Your task to perform on an android device: turn off data saver in the chrome app Image 0: 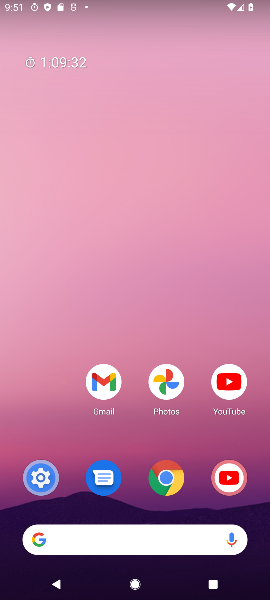
Step 0: press home button
Your task to perform on an android device: turn off data saver in the chrome app Image 1: 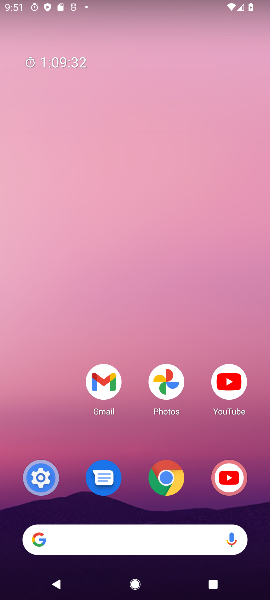
Step 1: press home button
Your task to perform on an android device: turn off data saver in the chrome app Image 2: 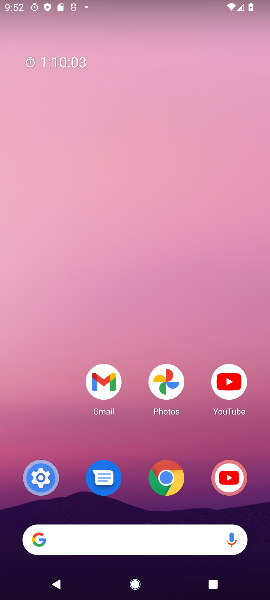
Step 2: drag from (68, 446) to (92, 73)
Your task to perform on an android device: turn off data saver in the chrome app Image 3: 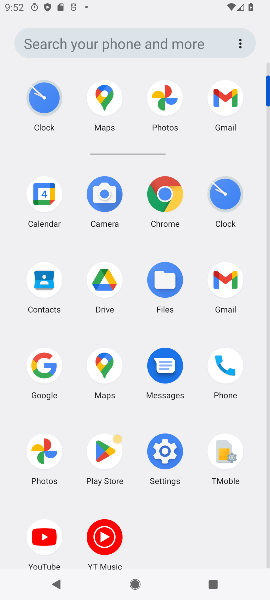
Step 3: click (160, 207)
Your task to perform on an android device: turn off data saver in the chrome app Image 4: 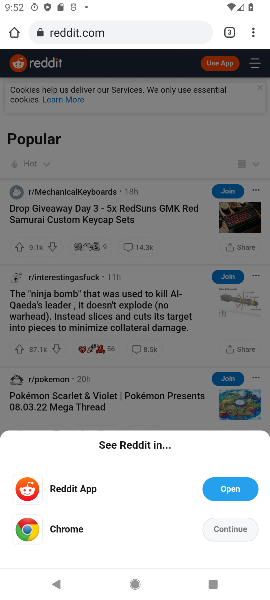
Step 4: click (255, 31)
Your task to perform on an android device: turn off data saver in the chrome app Image 5: 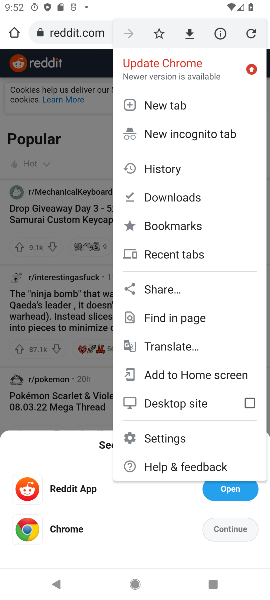
Step 5: click (163, 437)
Your task to perform on an android device: turn off data saver in the chrome app Image 6: 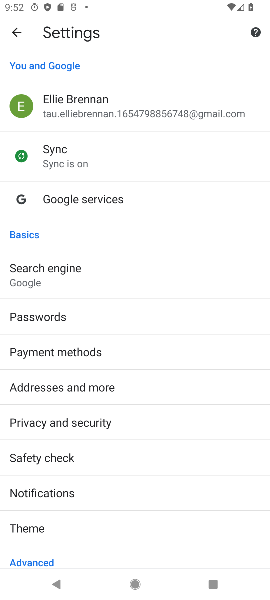
Step 6: drag from (88, 357) to (81, 0)
Your task to perform on an android device: turn off data saver in the chrome app Image 7: 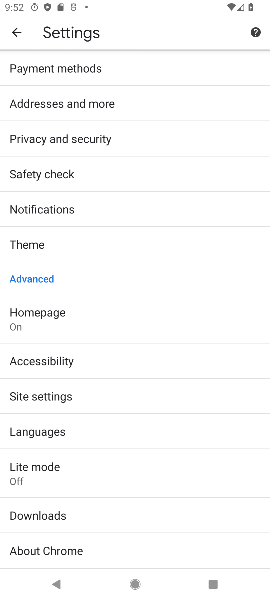
Step 7: click (62, 465)
Your task to perform on an android device: turn off data saver in the chrome app Image 8: 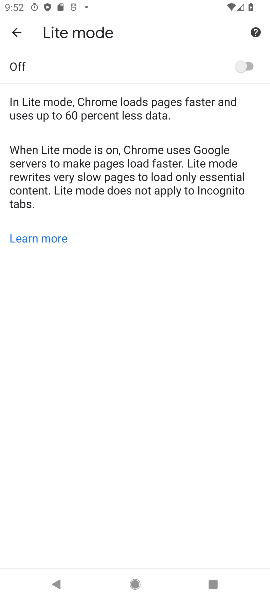
Step 8: task complete